Your task to perform on an android device: Open notification settings Image 0: 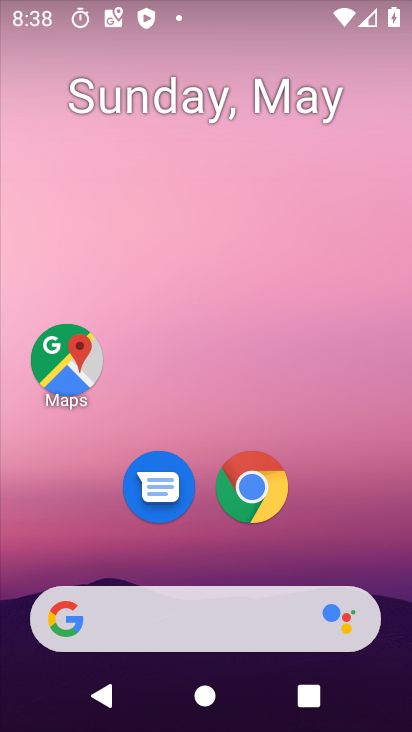
Step 0: press home button
Your task to perform on an android device: Open notification settings Image 1: 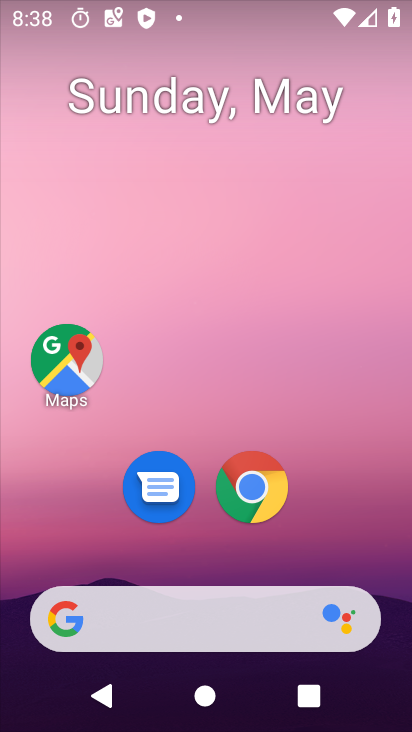
Step 1: drag from (40, 591) to (291, 91)
Your task to perform on an android device: Open notification settings Image 2: 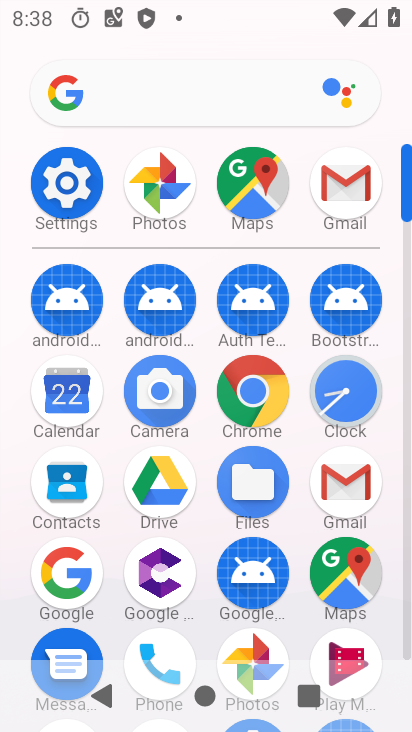
Step 2: click (51, 178)
Your task to perform on an android device: Open notification settings Image 3: 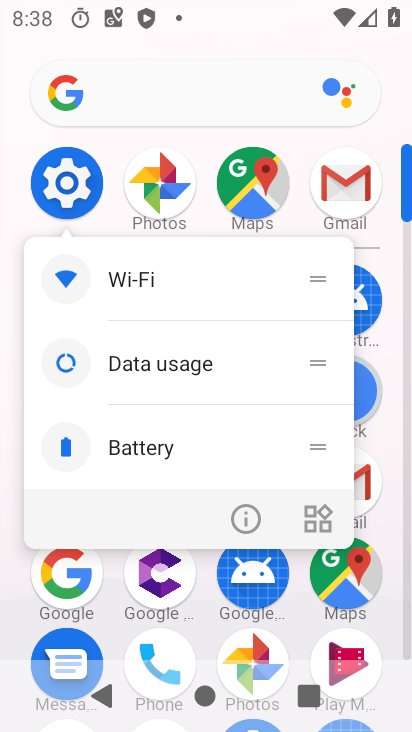
Step 3: click (77, 187)
Your task to perform on an android device: Open notification settings Image 4: 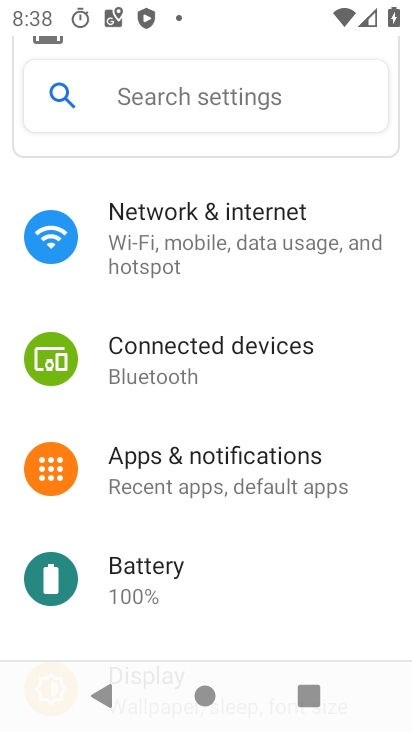
Step 4: click (241, 463)
Your task to perform on an android device: Open notification settings Image 5: 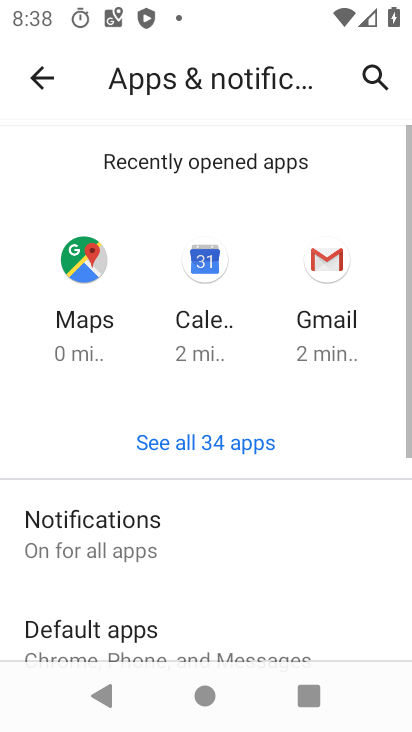
Step 5: click (143, 535)
Your task to perform on an android device: Open notification settings Image 6: 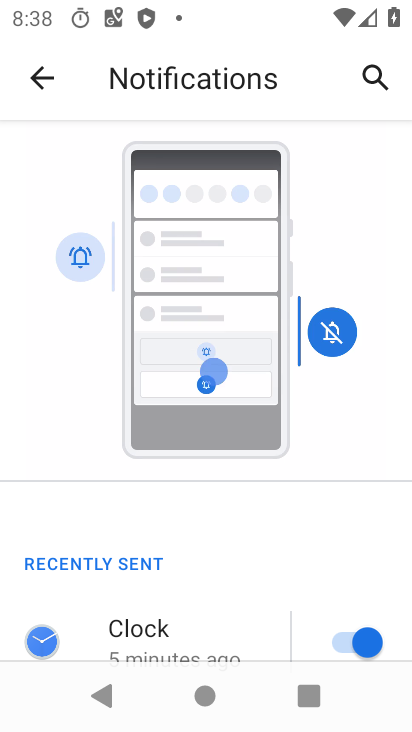
Step 6: task complete